Your task to perform on an android device: turn pop-ups on in chrome Image 0: 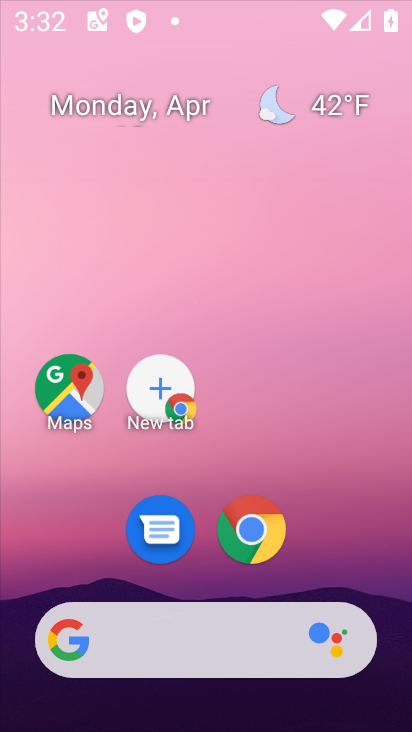
Step 0: click (258, 520)
Your task to perform on an android device: turn pop-ups on in chrome Image 1: 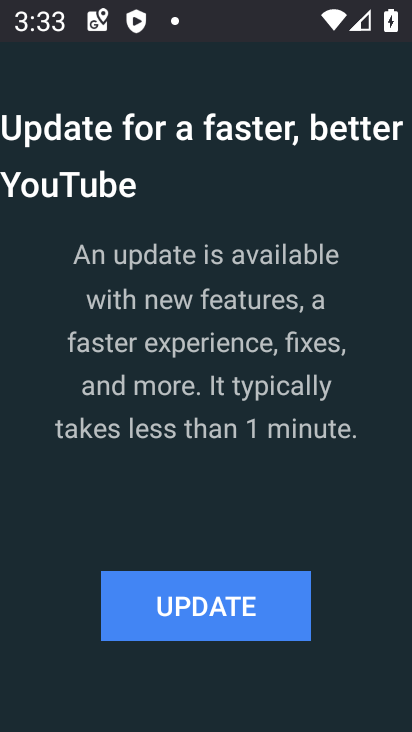
Step 1: press home button
Your task to perform on an android device: turn pop-ups on in chrome Image 2: 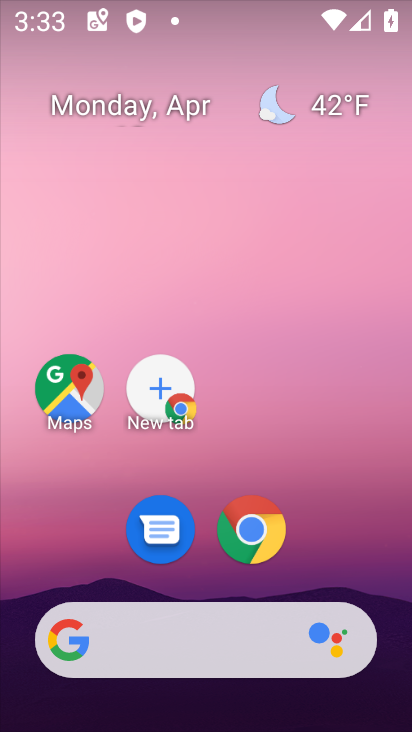
Step 2: click (245, 528)
Your task to perform on an android device: turn pop-ups on in chrome Image 3: 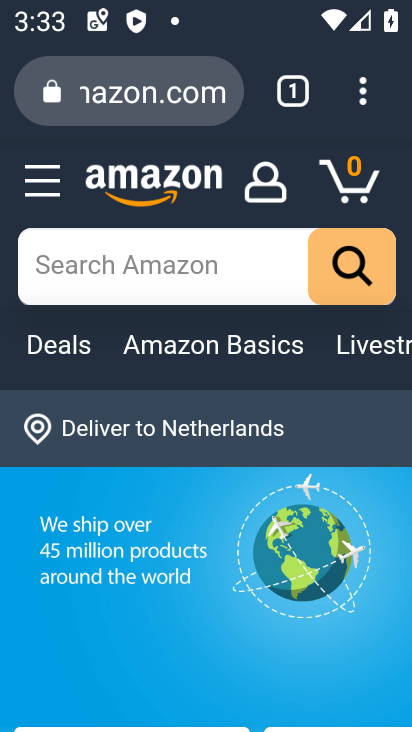
Step 3: drag from (360, 81) to (159, 546)
Your task to perform on an android device: turn pop-ups on in chrome Image 4: 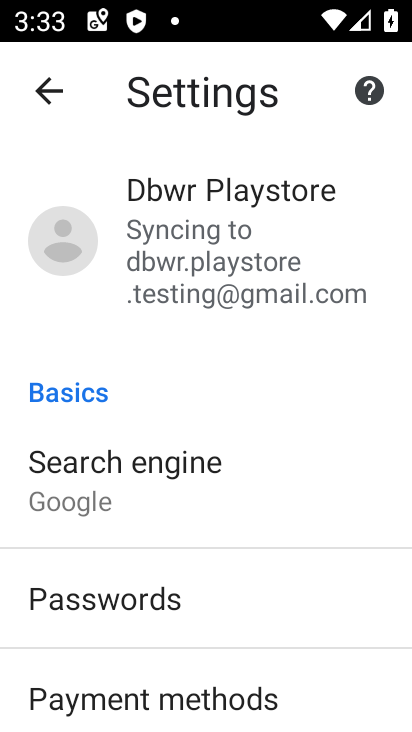
Step 4: drag from (155, 650) to (292, 140)
Your task to perform on an android device: turn pop-ups on in chrome Image 5: 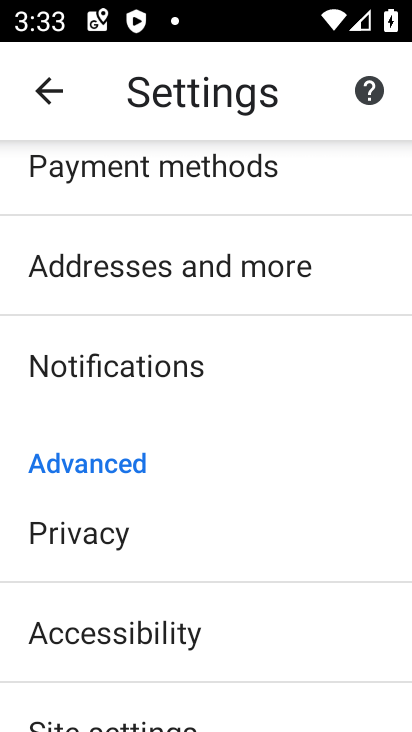
Step 5: drag from (186, 657) to (268, 222)
Your task to perform on an android device: turn pop-ups on in chrome Image 6: 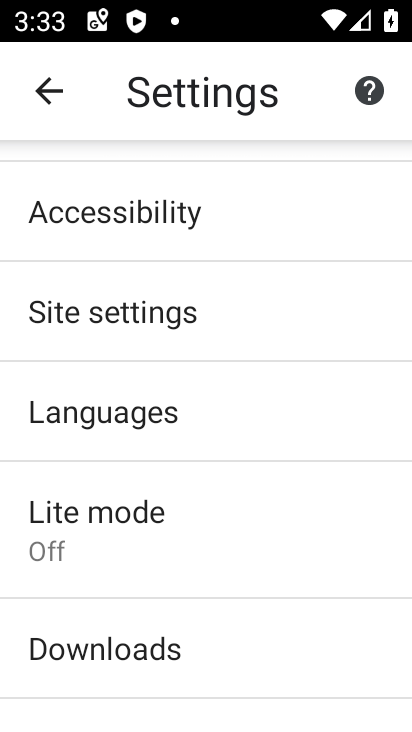
Step 6: click (98, 322)
Your task to perform on an android device: turn pop-ups on in chrome Image 7: 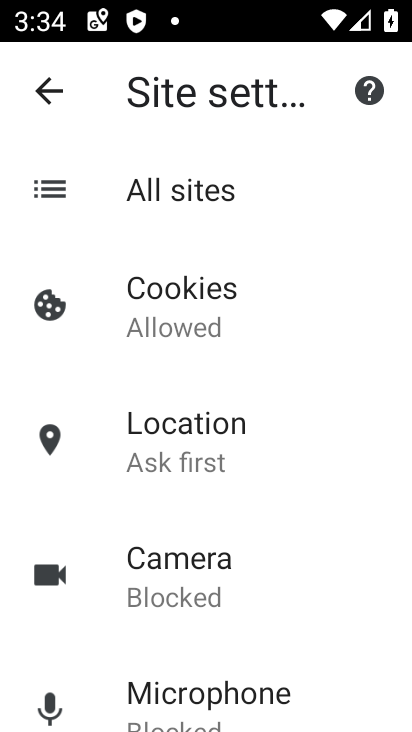
Step 7: drag from (180, 639) to (296, 198)
Your task to perform on an android device: turn pop-ups on in chrome Image 8: 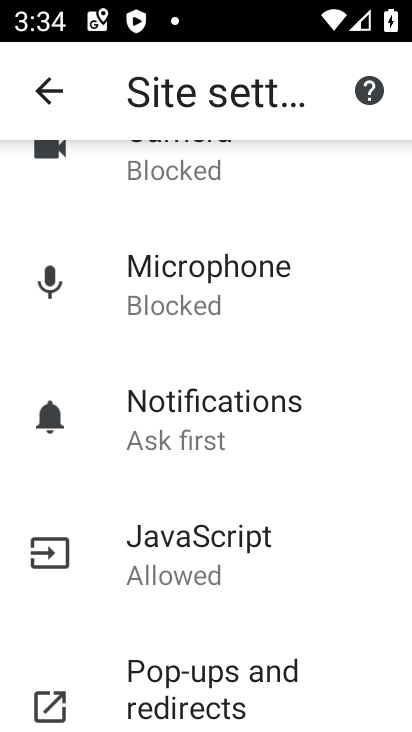
Step 8: click (205, 677)
Your task to perform on an android device: turn pop-ups on in chrome Image 9: 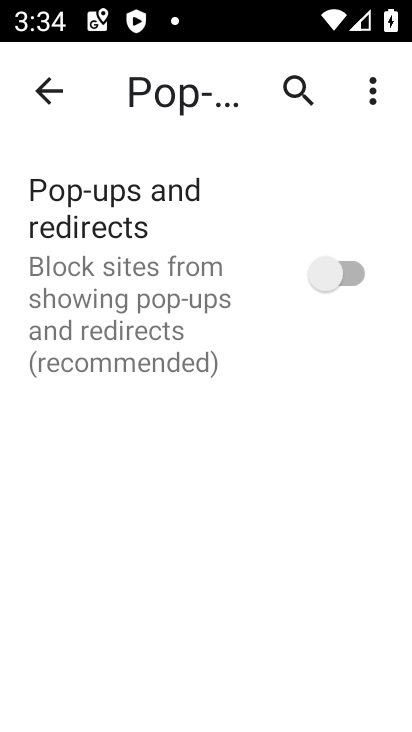
Step 9: click (319, 282)
Your task to perform on an android device: turn pop-ups on in chrome Image 10: 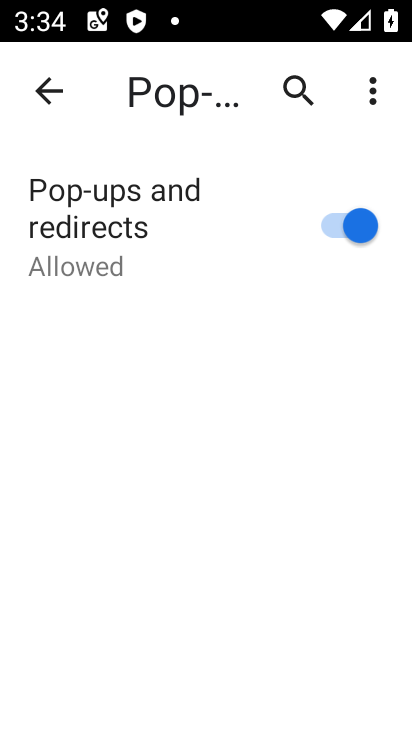
Step 10: task complete